Your task to perform on an android device: Open accessibility settings Image 0: 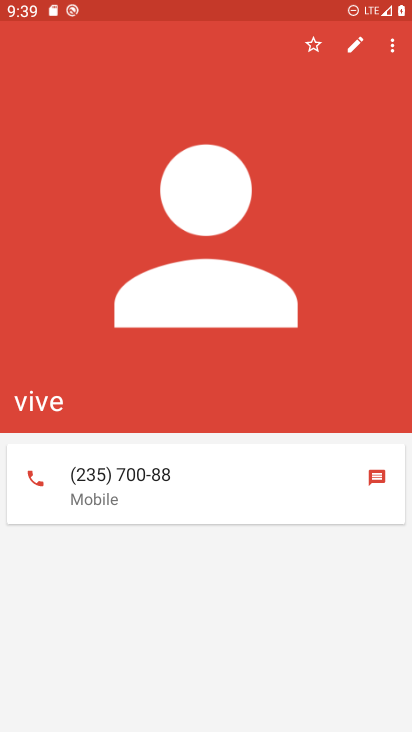
Step 0: press home button
Your task to perform on an android device: Open accessibility settings Image 1: 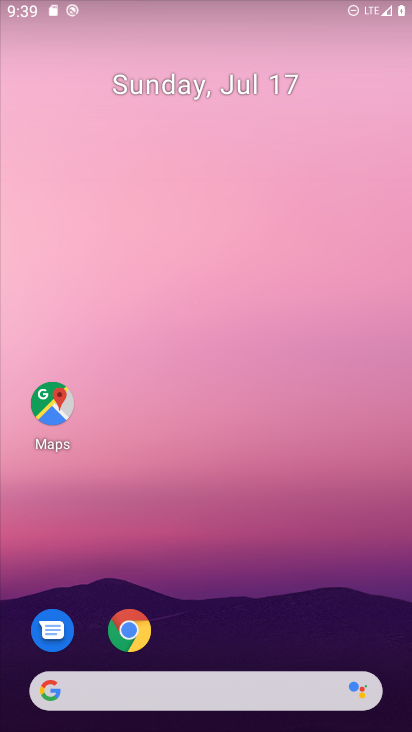
Step 1: drag from (307, 661) to (294, 310)
Your task to perform on an android device: Open accessibility settings Image 2: 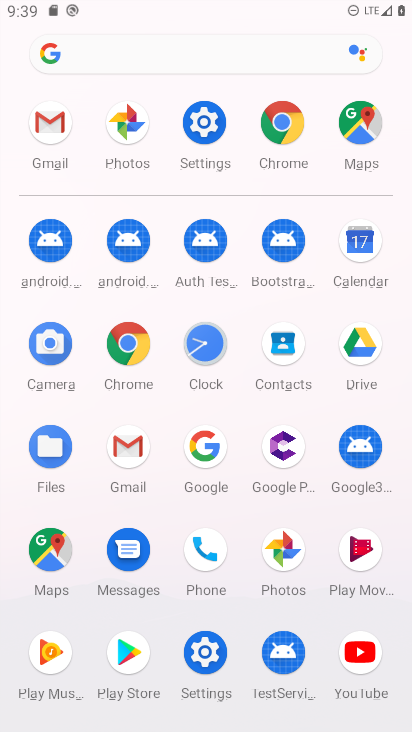
Step 2: click (197, 125)
Your task to perform on an android device: Open accessibility settings Image 3: 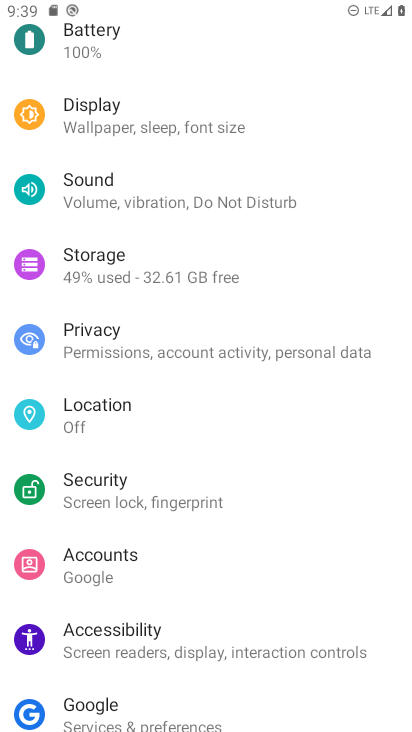
Step 3: click (128, 627)
Your task to perform on an android device: Open accessibility settings Image 4: 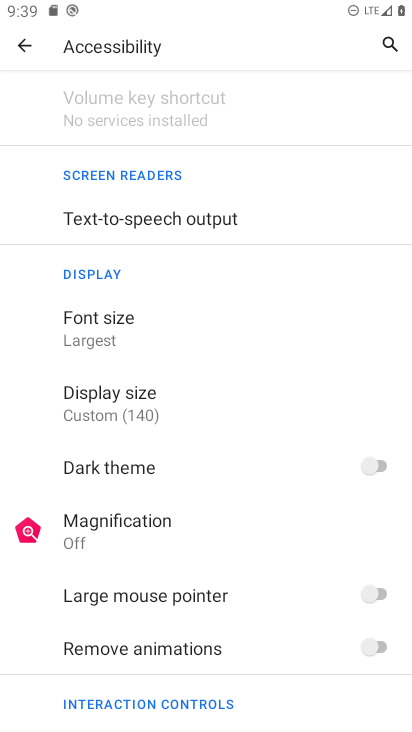
Step 4: task complete